Your task to perform on an android device: Open Google Chrome and open the bookmarks view Image 0: 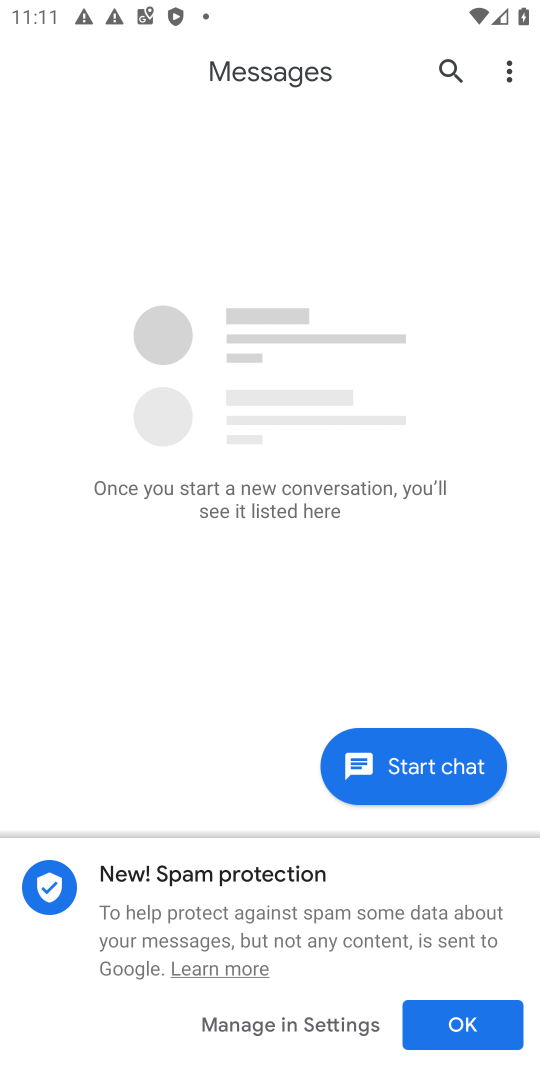
Step 0: press home button
Your task to perform on an android device: Open Google Chrome and open the bookmarks view Image 1: 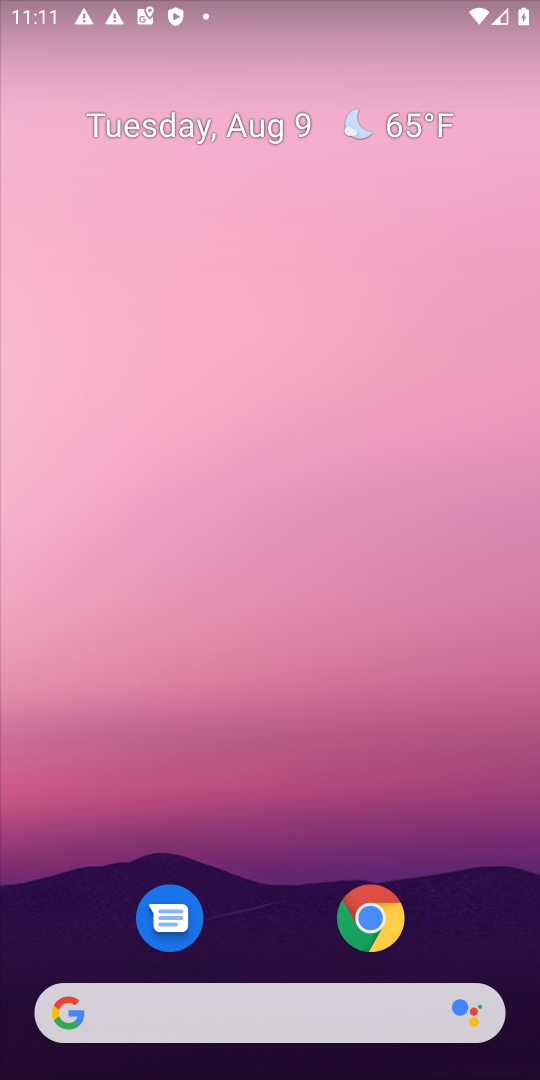
Step 1: drag from (238, 617) to (297, 169)
Your task to perform on an android device: Open Google Chrome and open the bookmarks view Image 2: 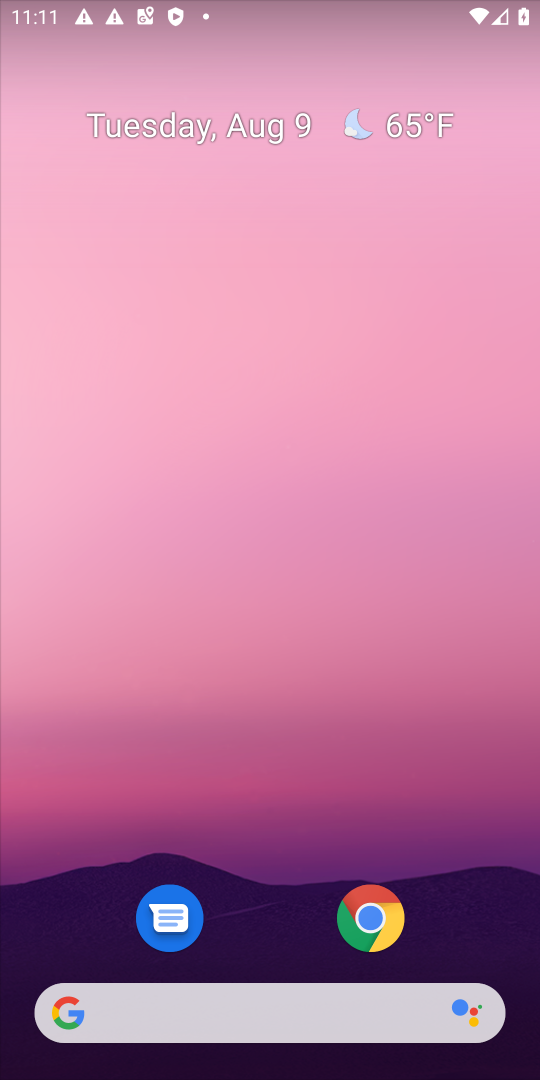
Step 2: drag from (239, 910) to (312, 275)
Your task to perform on an android device: Open Google Chrome and open the bookmarks view Image 3: 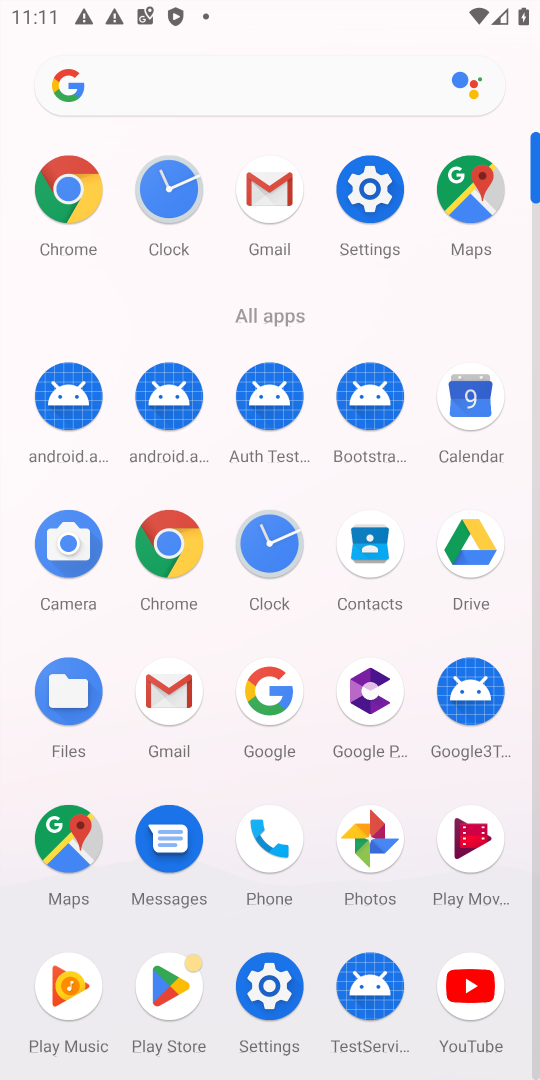
Step 3: click (164, 540)
Your task to perform on an android device: Open Google Chrome and open the bookmarks view Image 4: 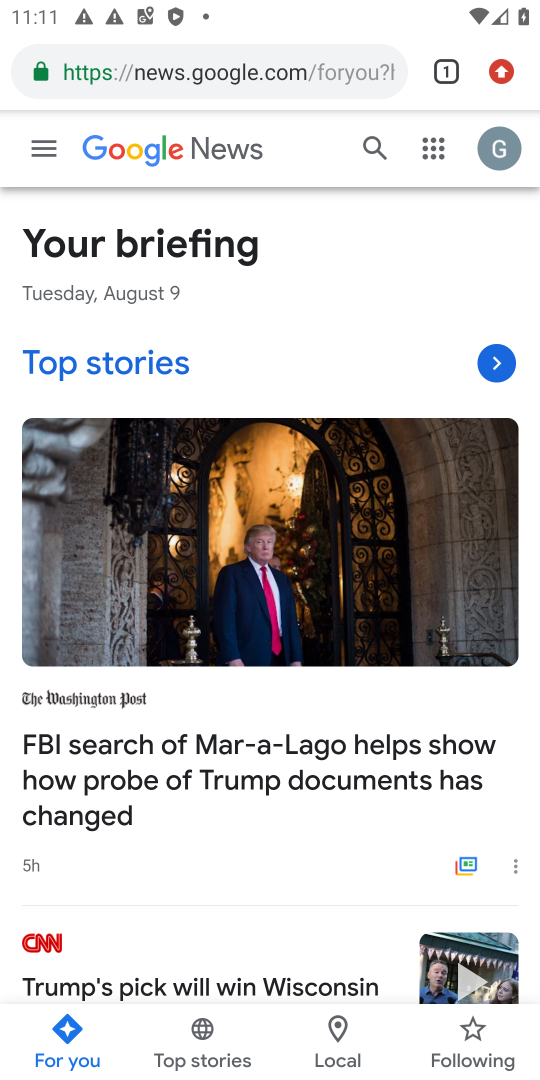
Step 4: task complete